Your task to perform on an android device: What's on my calendar today? Image 0: 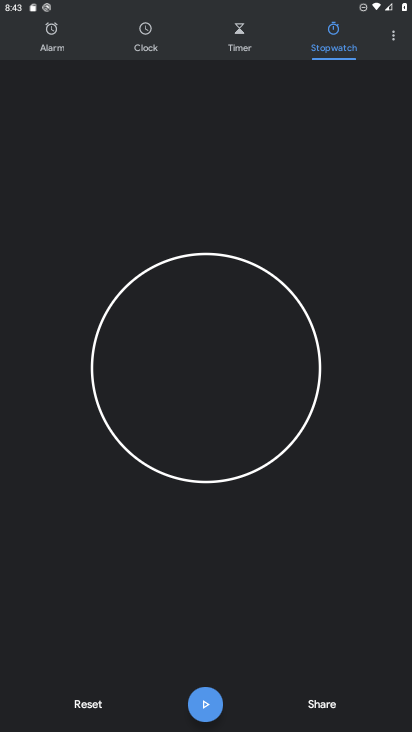
Step 0: press home button
Your task to perform on an android device: What's on my calendar today? Image 1: 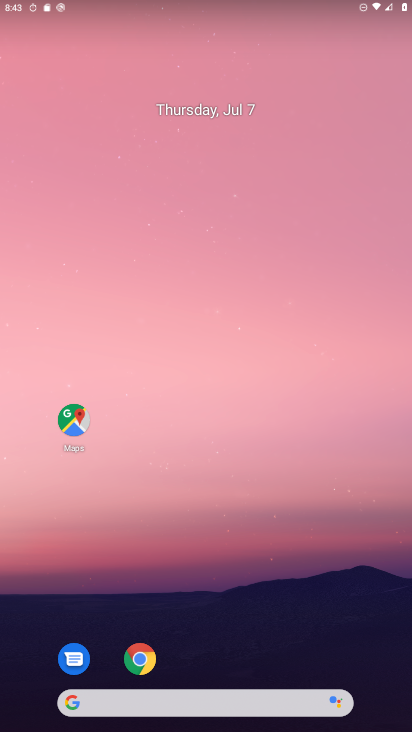
Step 1: drag from (372, 676) to (260, 65)
Your task to perform on an android device: What's on my calendar today? Image 2: 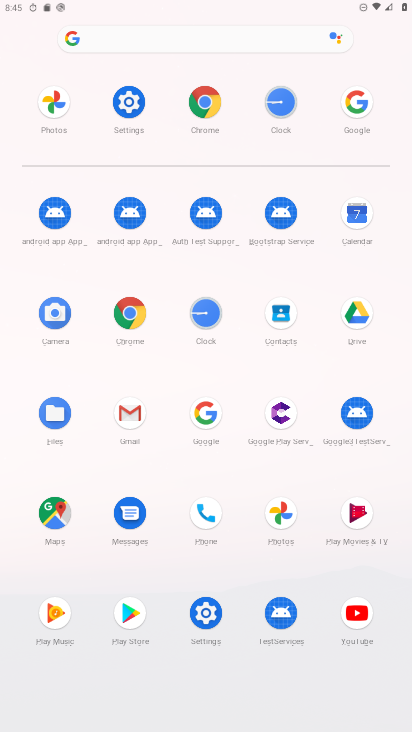
Step 2: click (360, 214)
Your task to perform on an android device: What's on my calendar today? Image 3: 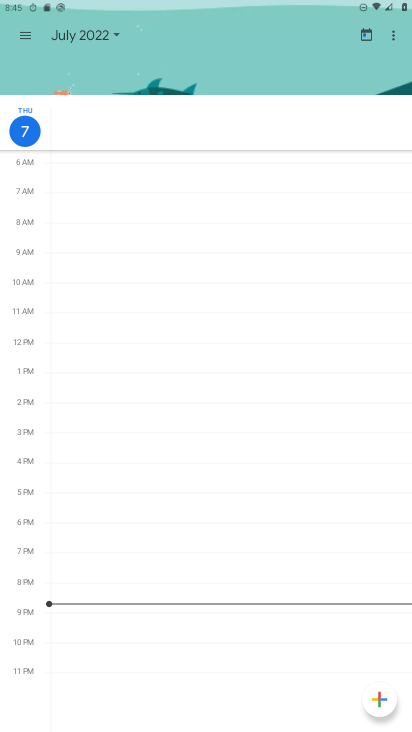
Step 3: task complete